Your task to perform on an android device: turn off smart reply in the gmail app Image 0: 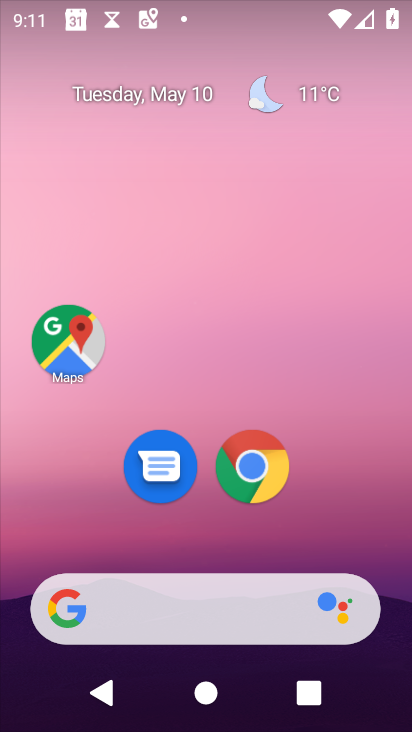
Step 0: drag from (316, 552) to (353, 76)
Your task to perform on an android device: turn off smart reply in the gmail app Image 1: 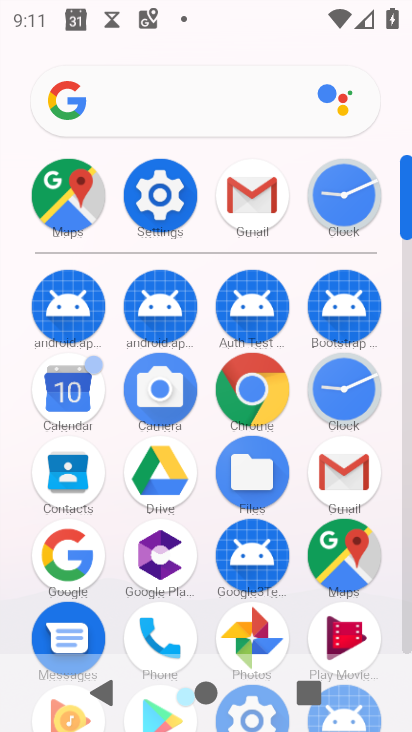
Step 1: click (325, 474)
Your task to perform on an android device: turn off smart reply in the gmail app Image 2: 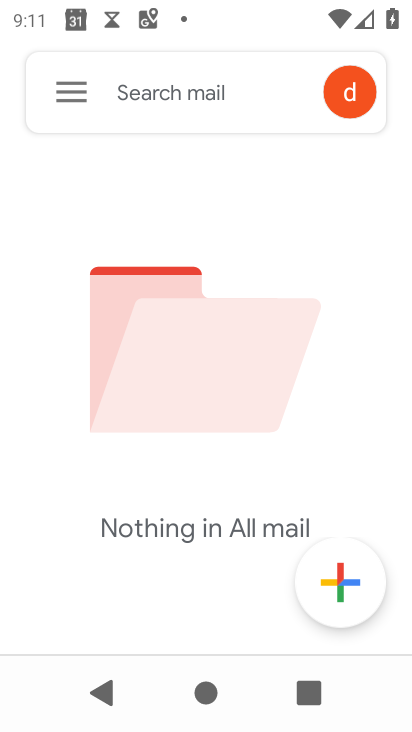
Step 2: click (74, 86)
Your task to perform on an android device: turn off smart reply in the gmail app Image 3: 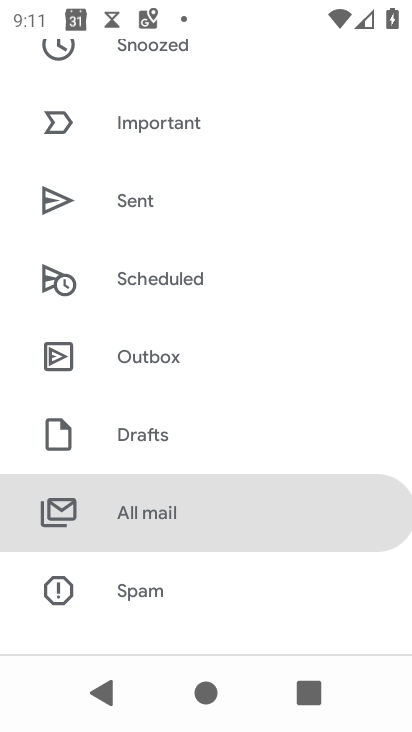
Step 3: drag from (169, 302) to (195, 421)
Your task to perform on an android device: turn off smart reply in the gmail app Image 4: 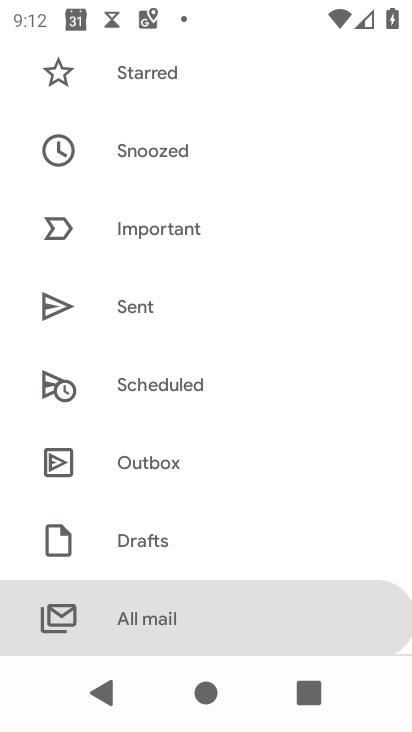
Step 4: drag from (197, 610) to (234, 203)
Your task to perform on an android device: turn off smart reply in the gmail app Image 5: 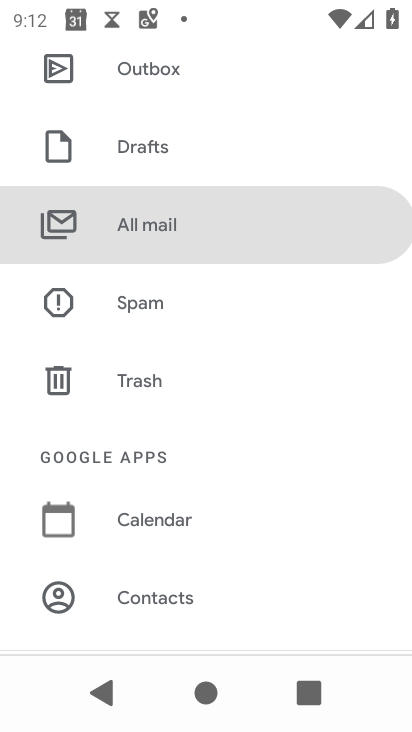
Step 5: drag from (215, 580) to (215, 333)
Your task to perform on an android device: turn off smart reply in the gmail app Image 6: 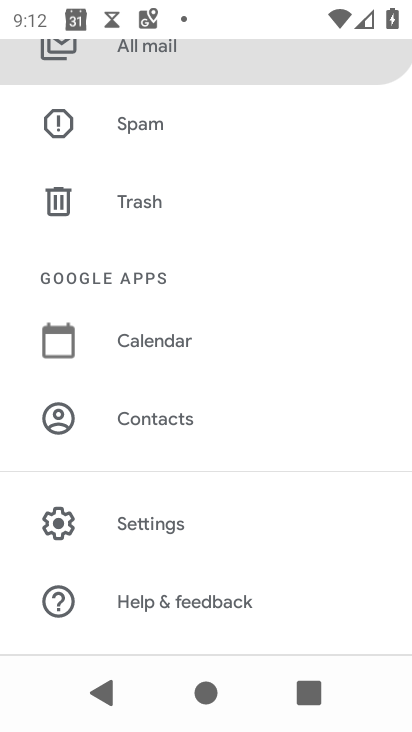
Step 6: click (162, 505)
Your task to perform on an android device: turn off smart reply in the gmail app Image 7: 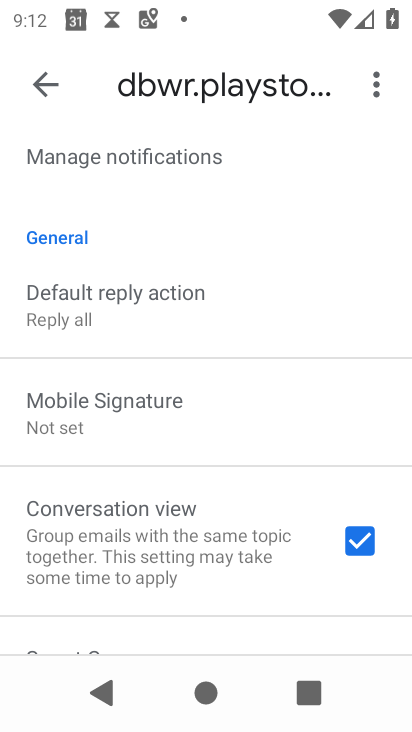
Step 7: task complete